Your task to perform on an android device: Search for Italian restaurants on Maps Image 0: 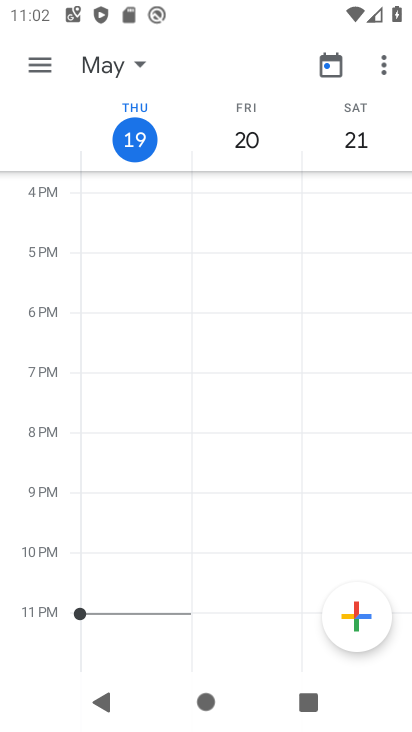
Step 0: press home button
Your task to perform on an android device: Search for Italian restaurants on Maps Image 1: 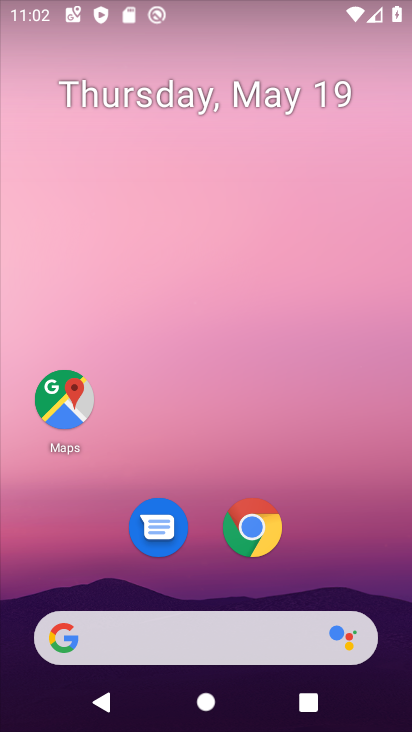
Step 1: click (69, 410)
Your task to perform on an android device: Search for Italian restaurants on Maps Image 2: 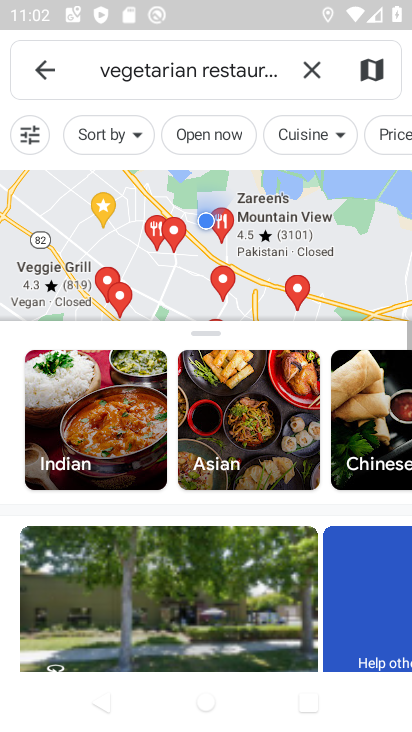
Step 2: click (147, 67)
Your task to perform on an android device: Search for Italian restaurants on Maps Image 3: 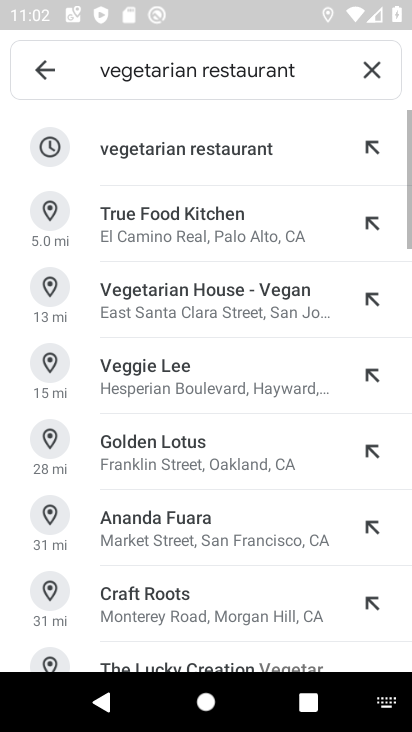
Step 3: click (149, 70)
Your task to perform on an android device: Search for Italian restaurants on Maps Image 4: 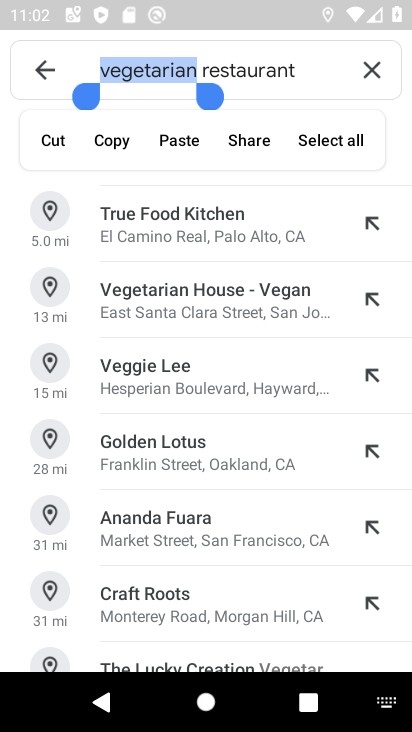
Step 4: type "italian"
Your task to perform on an android device: Search for Italian restaurants on Maps Image 5: 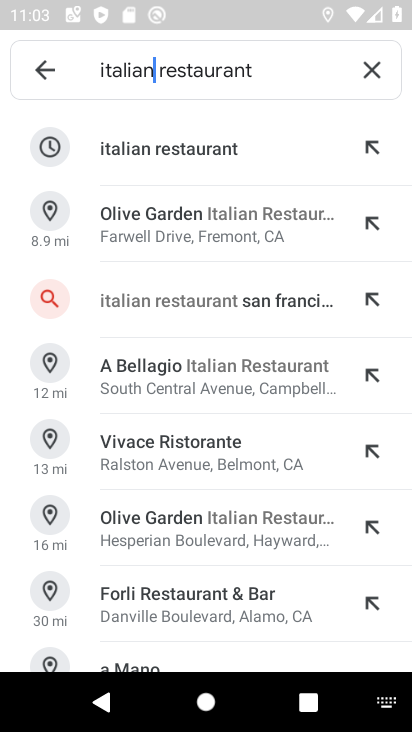
Step 5: click (211, 157)
Your task to perform on an android device: Search for Italian restaurants on Maps Image 6: 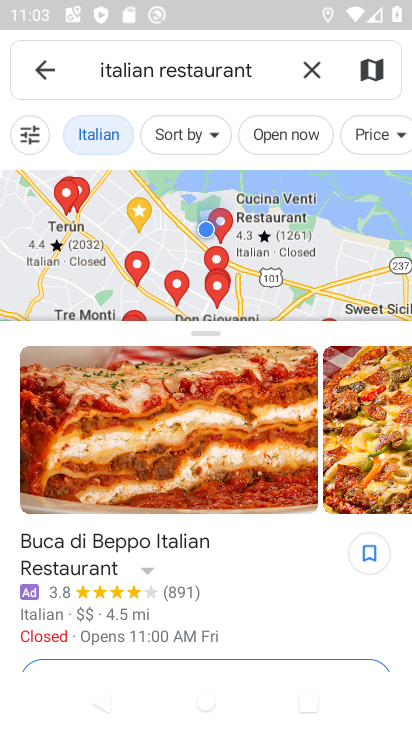
Step 6: task complete